Your task to perform on an android device: open chrome and create a bookmark for the current page Image 0: 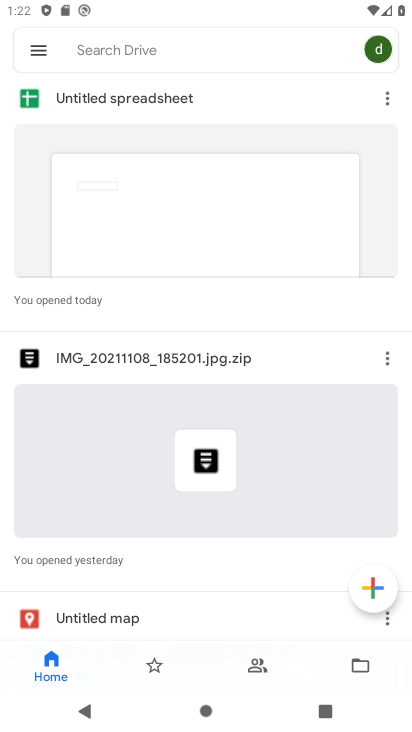
Step 0: press home button
Your task to perform on an android device: open chrome and create a bookmark for the current page Image 1: 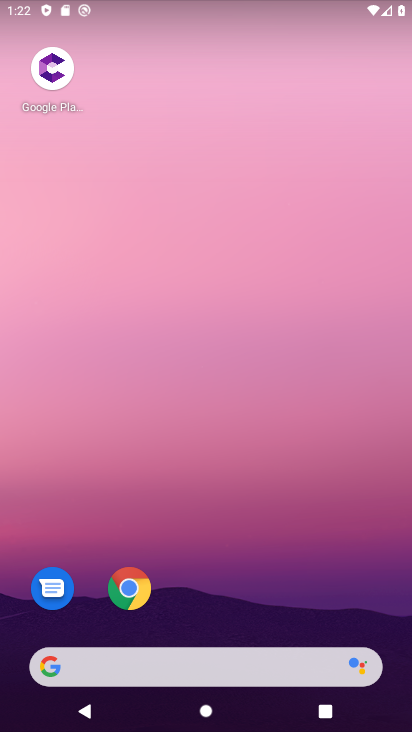
Step 1: click (142, 595)
Your task to perform on an android device: open chrome and create a bookmark for the current page Image 2: 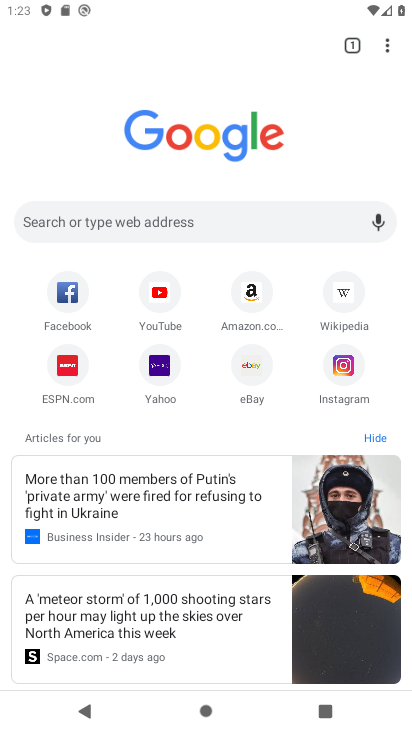
Step 2: click (397, 34)
Your task to perform on an android device: open chrome and create a bookmark for the current page Image 3: 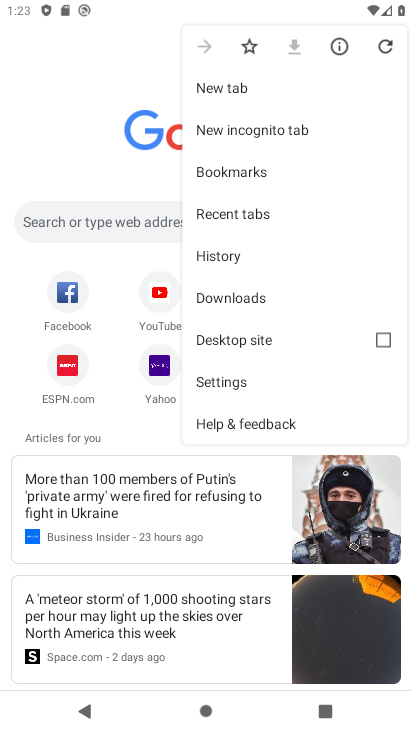
Step 3: click (259, 53)
Your task to perform on an android device: open chrome and create a bookmark for the current page Image 4: 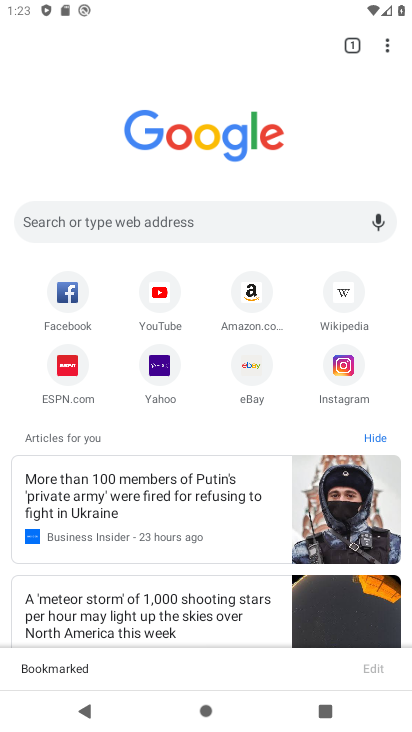
Step 4: task complete